Your task to perform on an android device: Open privacy settings Image 0: 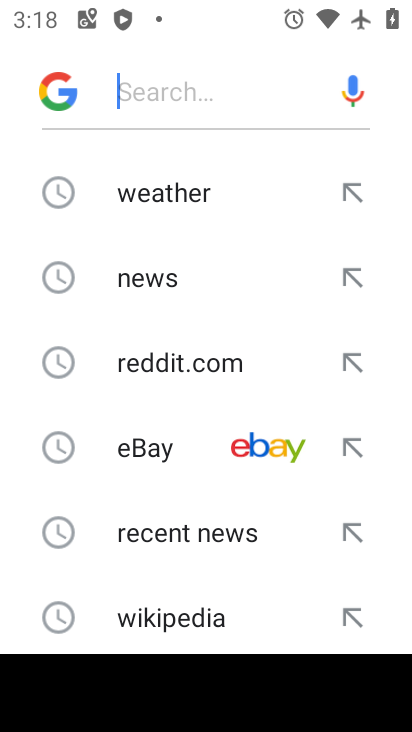
Step 0: press home button
Your task to perform on an android device: Open privacy settings Image 1: 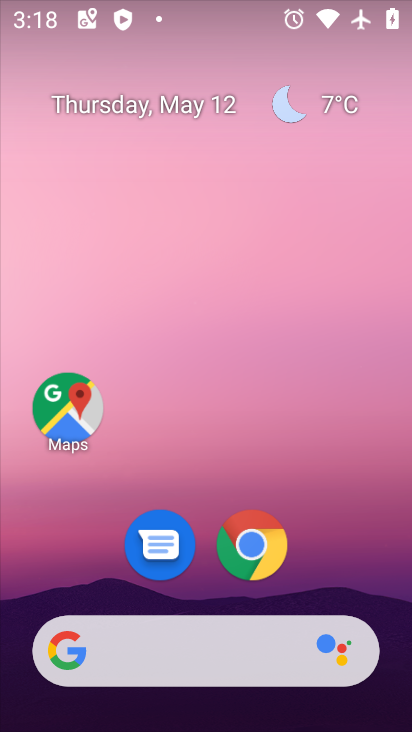
Step 1: drag from (393, 645) to (292, 74)
Your task to perform on an android device: Open privacy settings Image 2: 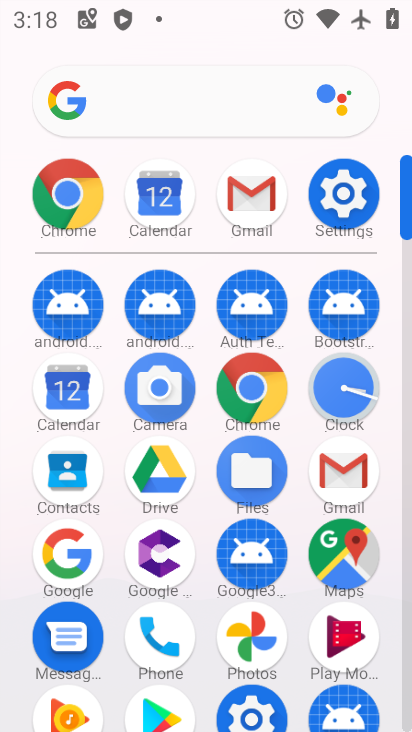
Step 2: click (406, 695)
Your task to perform on an android device: Open privacy settings Image 3: 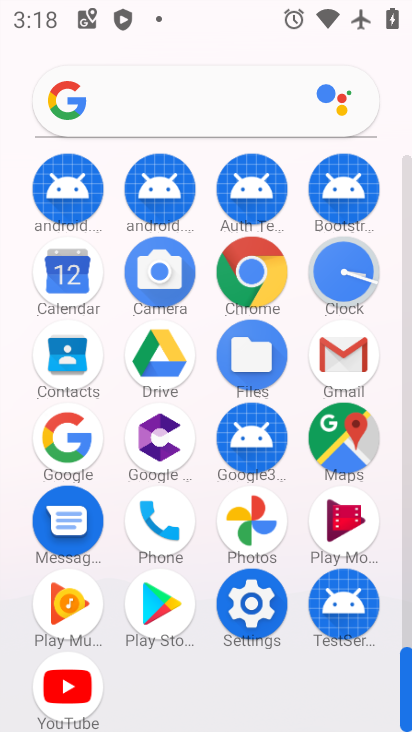
Step 3: click (249, 604)
Your task to perform on an android device: Open privacy settings Image 4: 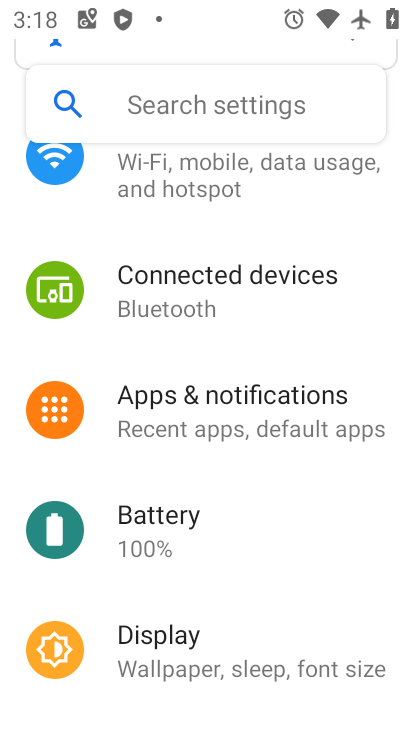
Step 4: drag from (348, 626) to (372, 231)
Your task to perform on an android device: Open privacy settings Image 5: 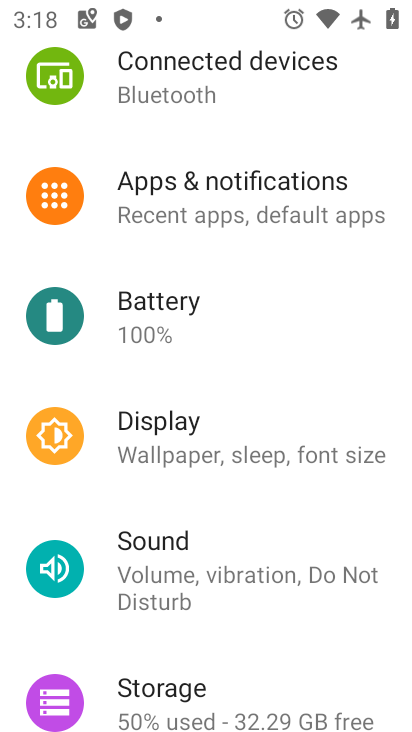
Step 5: drag from (375, 655) to (307, 169)
Your task to perform on an android device: Open privacy settings Image 6: 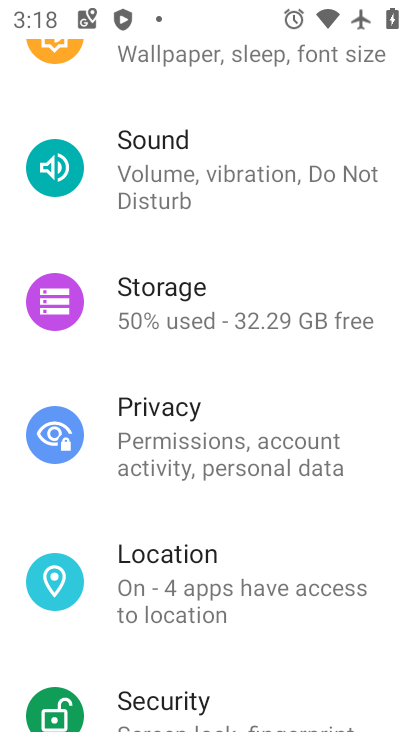
Step 6: click (145, 433)
Your task to perform on an android device: Open privacy settings Image 7: 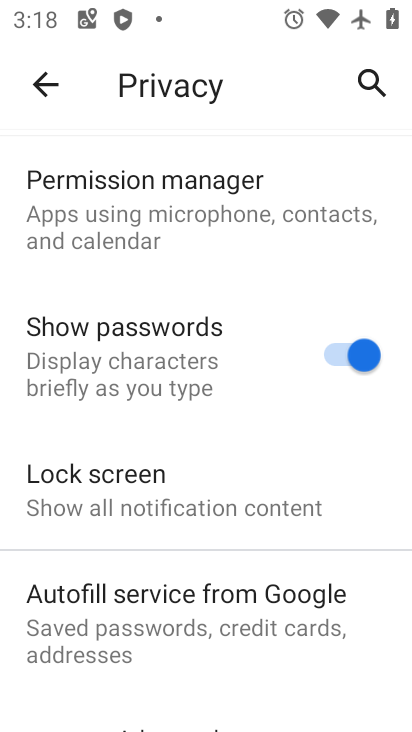
Step 7: drag from (283, 673) to (284, 231)
Your task to perform on an android device: Open privacy settings Image 8: 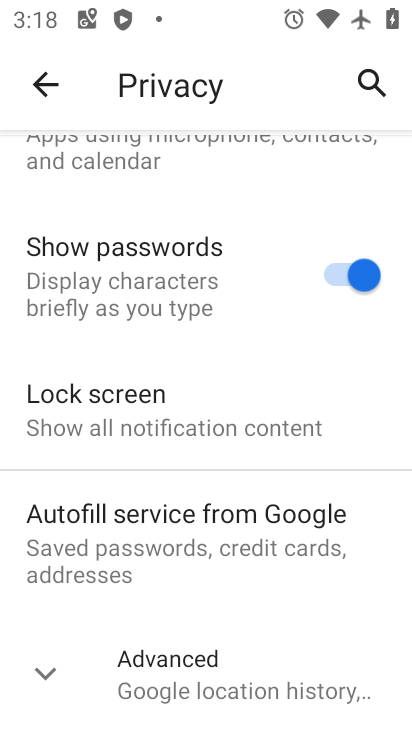
Step 8: click (46, 667)
Your task to perform on an android device: Open privacy settings Image 9: 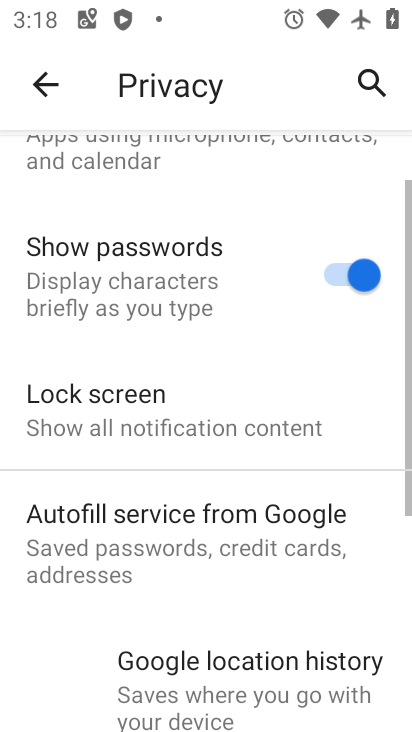
Step 9: task complete